Your task to perform on an android device: Open Google Image 0: 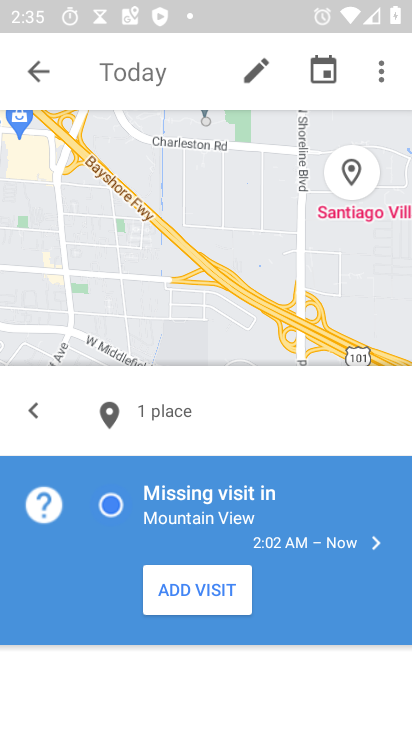
Step 0: press home button
Your task to perform on an android device: Open Google Image 1: 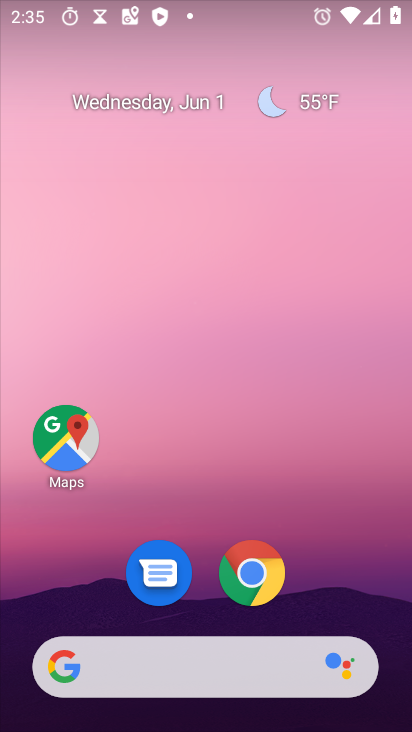
Step 1: drag from (333, 544) to (399, 38)
Your task to perform on an android device: Open Google Image 2: 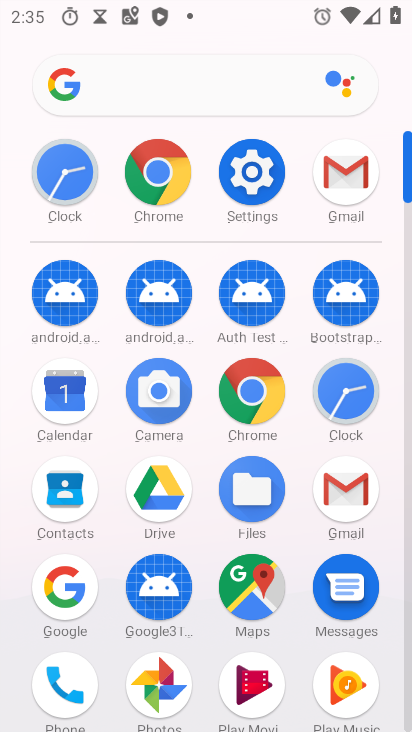
Step 2: click (68, 595)
Your task to perform on an android device: Open Google Image 3: 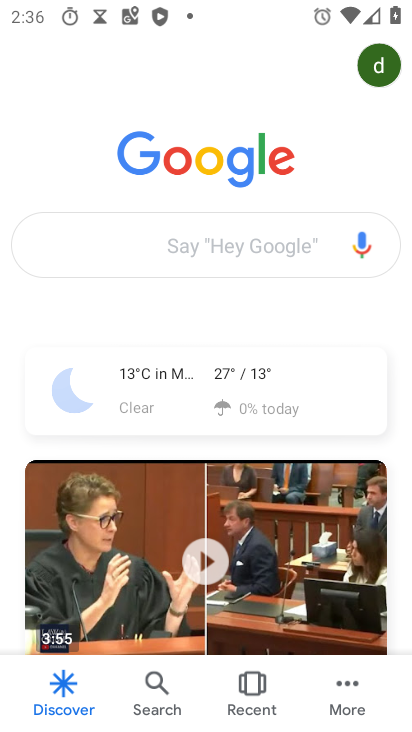
Step 3: task complete